Your task to perform on an android device: Open wifi settings Image 0: 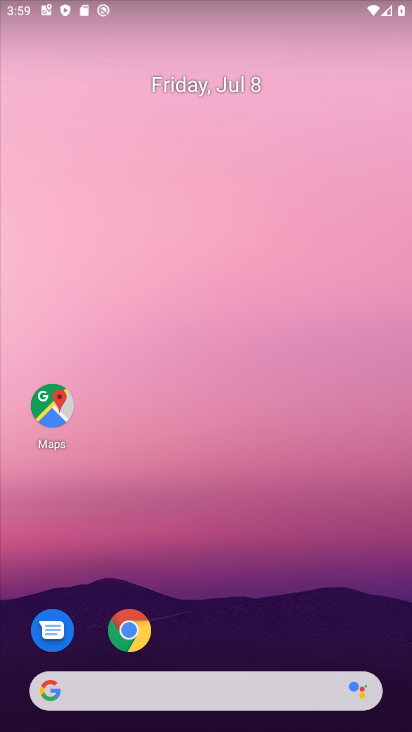
Step 0: drag from (304, 591) to (268, 96)
Your task to perform on an android device: Open wifi settings Image 1: 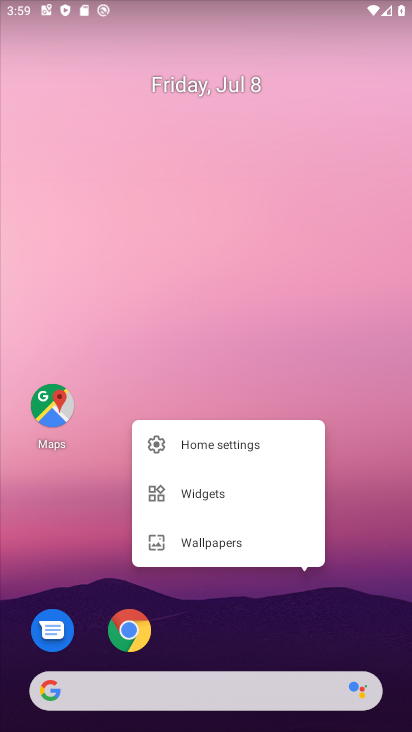
Step 1: click (262, 352)
Your task to perform on an android device: Open wifi settings Image 2: 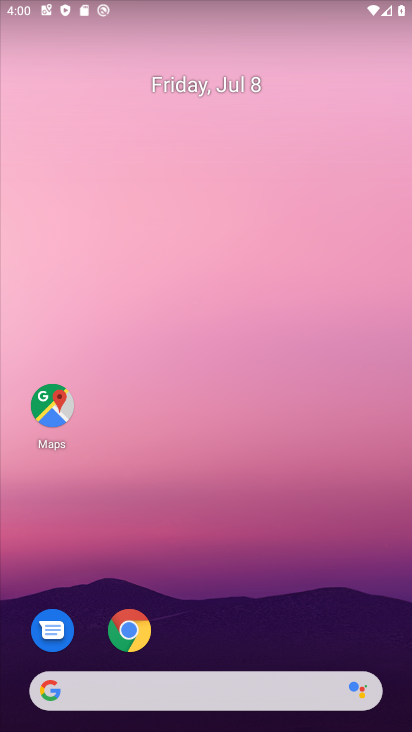
Step 2: drag from (262, 635) to (260, 85)
Your task to perform on an android device: Open wifi settings Image 3: 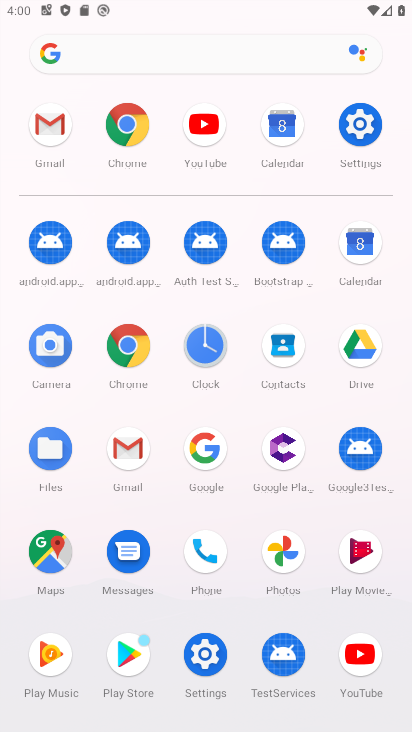
Step 3: click (380, 133)
Your task to perform on an android device: Open wifi settings Image 4: 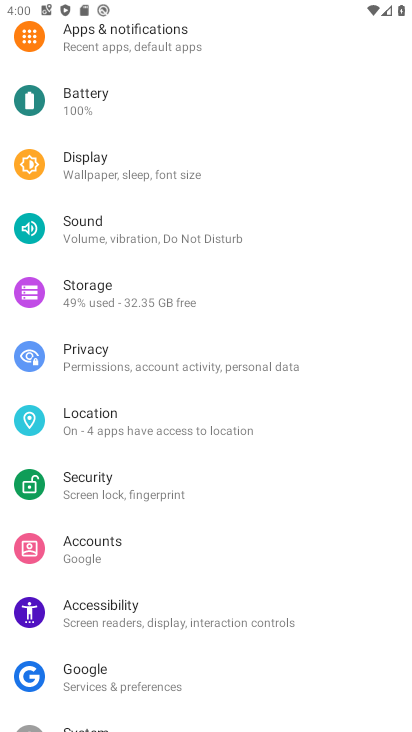
Step 4: drag from (250, 171) to (286, 412)
Your task to perform on an android device: Open wifi settings Image 5: 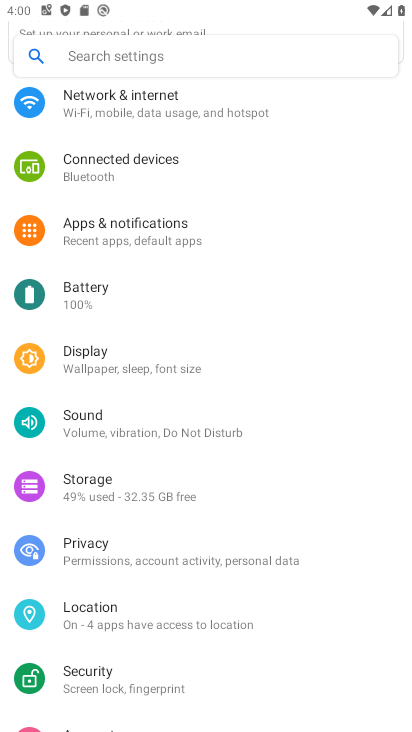
Step 5: click (200, 128)
Your task to perform on an android device: Open wifi settings Image 6: 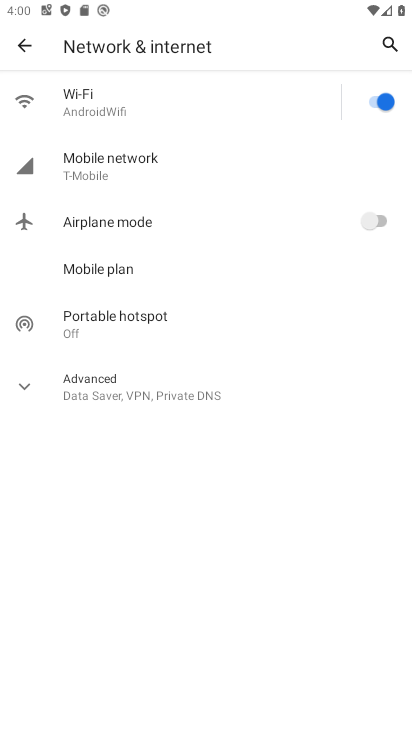
Step 6: click (278, 175)
Your task to perform on an android device: Open wifi settings Image 7: 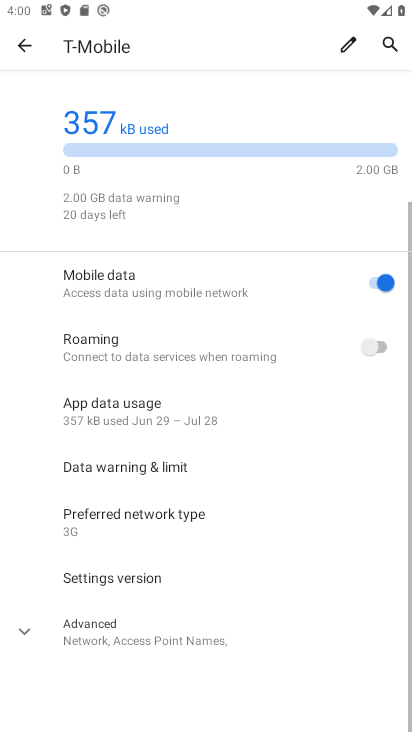
Step 7: task complete